Your task to perform on an android device: empty trash in google photos Image 0: 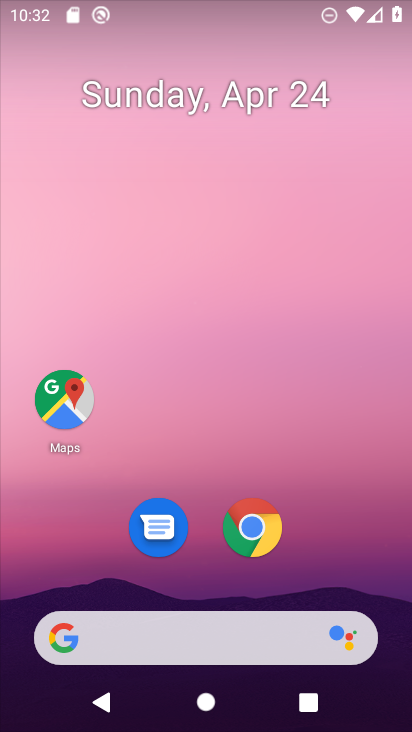
Step 0: drag from (389, 592) to (268, 118)
Your task to perform on an android device: empty trash in google photos Image 1: 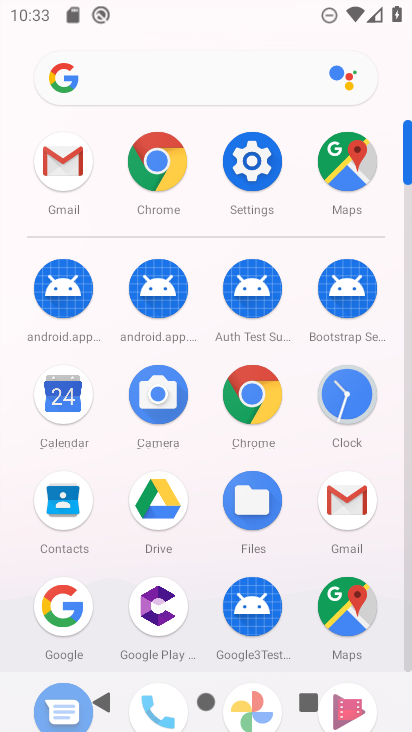
Step 1: click (410, 668)
Your task to perform on an android device: empty trash in google photos Image 2: 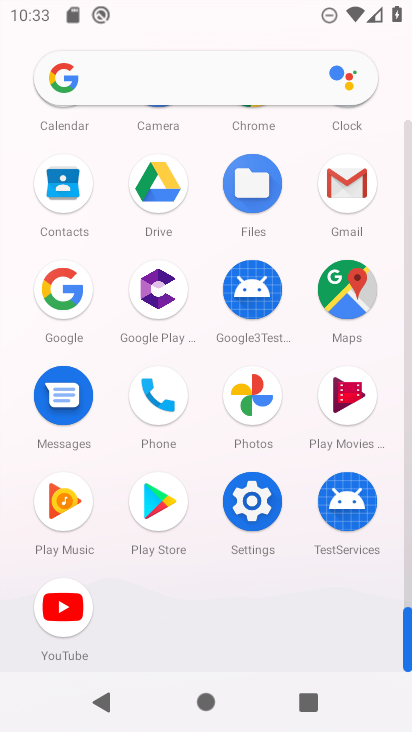
Step 2: click (252, 396)
Your task to perform on an android device: empty trash in google photos Image 3: 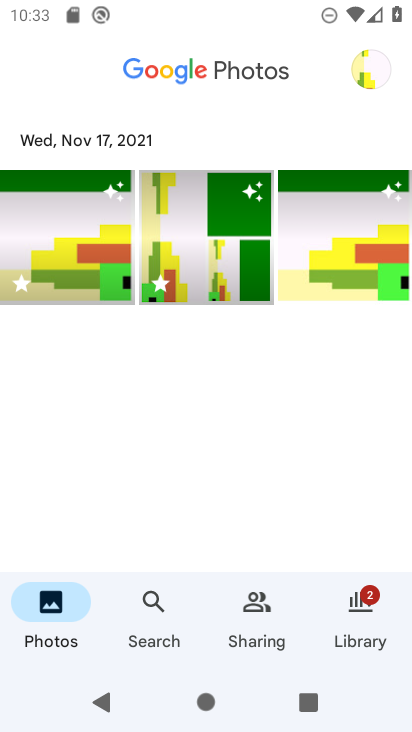
Step 3: click (365, 63)
Your task to perform on an android device: empty trash in google photos Image 4: 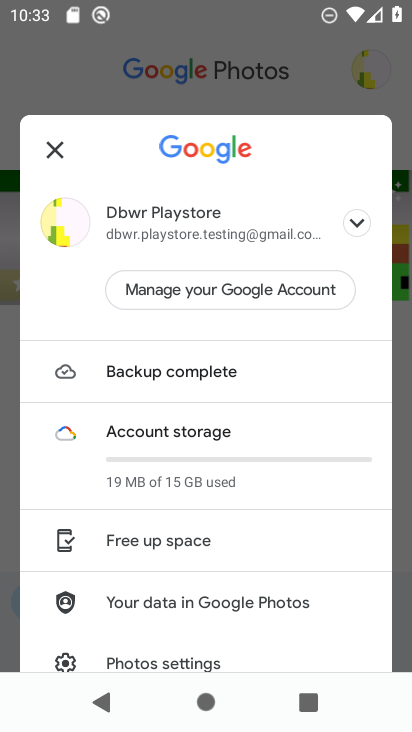
Step 4: press back button
Your task to perform on an android device: empty trash in google photos Image 5: 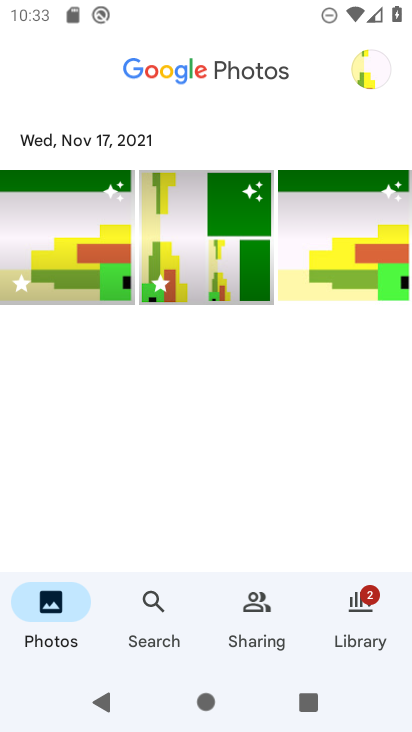
Step 5: click (366, 617)
Your task to perform on an android device: empty trash in google photos Image 6: 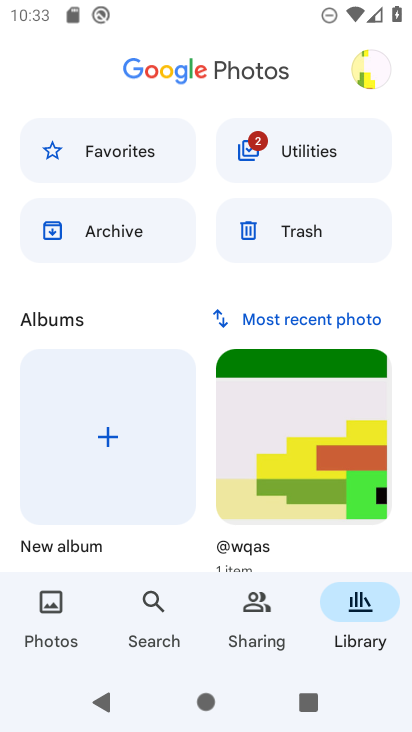
Step 6: click (320, 222)
Your task to perform on an android device: empty trash in google photos Image 7: 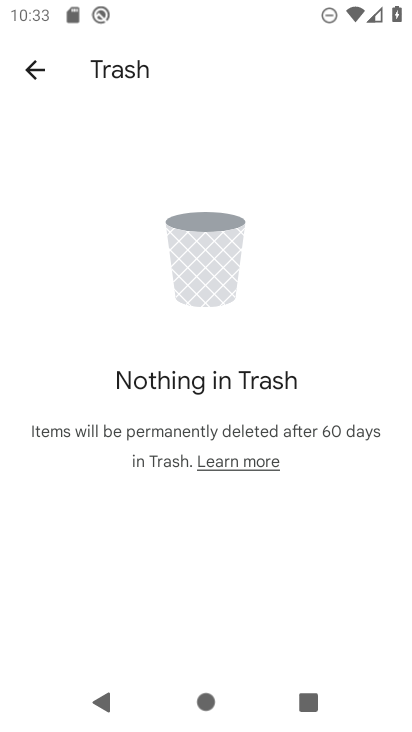
Step 7: task complete